Your task to perform on an android device: Go to Yahoo.com Image 0: 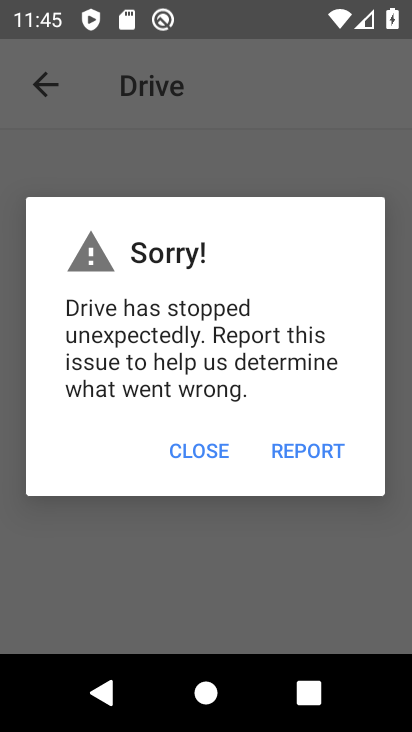
Step 0: press home button
Your task to perform on an android device: Go to Yahoo.com Image 1: 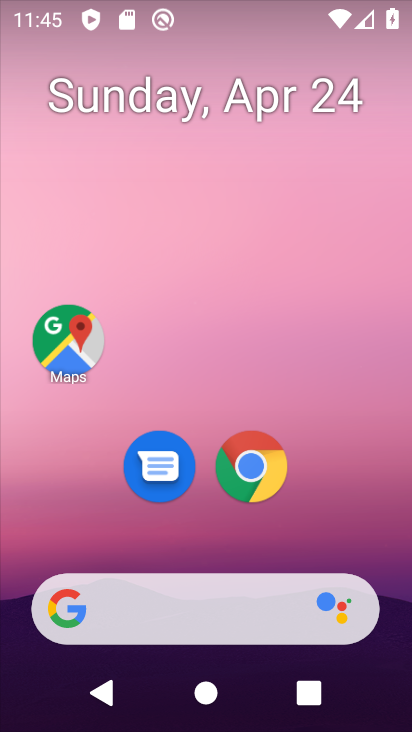
Step 1: click (255, 469)
Your task to perform on an android device: Go to Yahoo.com Image 2: 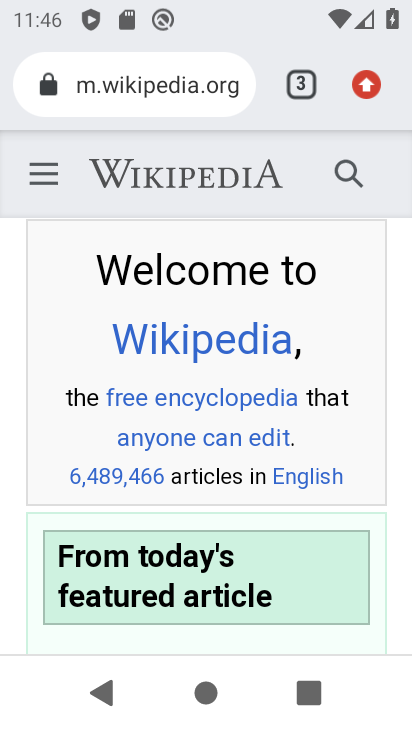
Step 2: click (308, 81)
Your task to perform on an android device: Go to Yahoo.com Image 3: 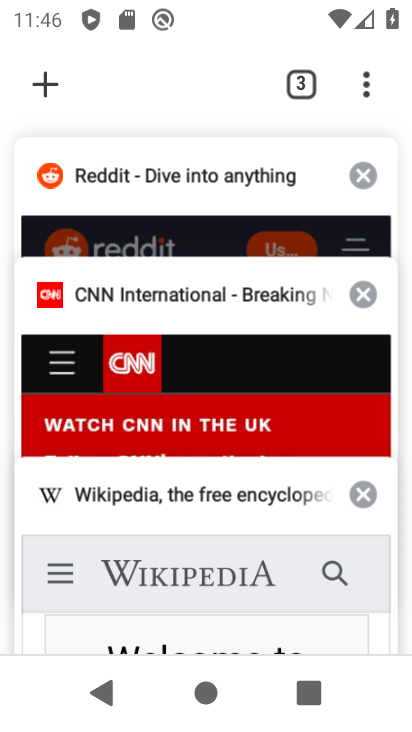
Step 3: click (54, 74)
Your task to perform on an android device: Go to Yahoo.com Image 4: 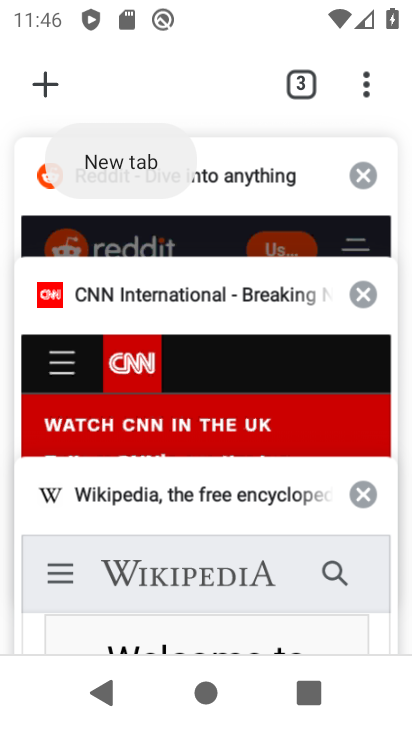
Step 4: click (52, 75)
Your task to perform on an android device: Go to Yahoo.com Image 5: 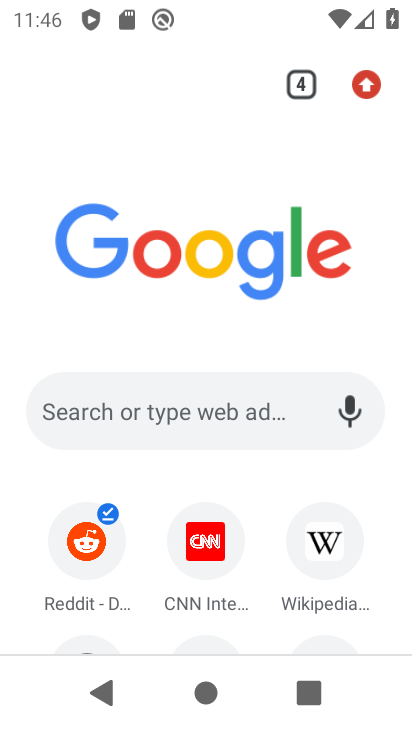
Step 5: drag from (223, 460) to (195, 88)
Your task to perform on an android device: Go to Yahoo.com Image 6: 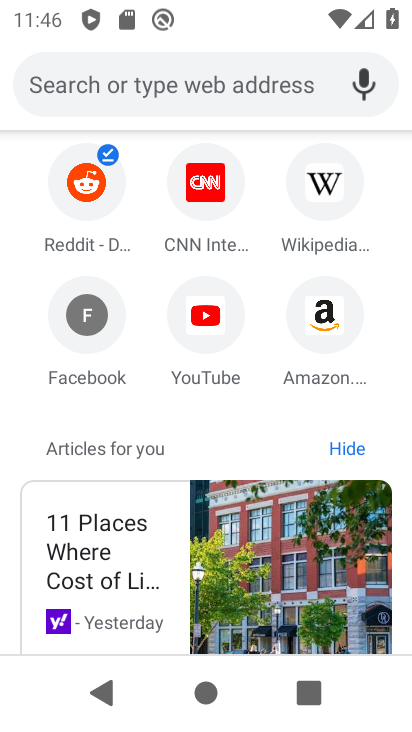
Step 6: drag from (255, 199) to (279, 528)
Your task to perform on an android device: Go to Yahoo.com Image 7: 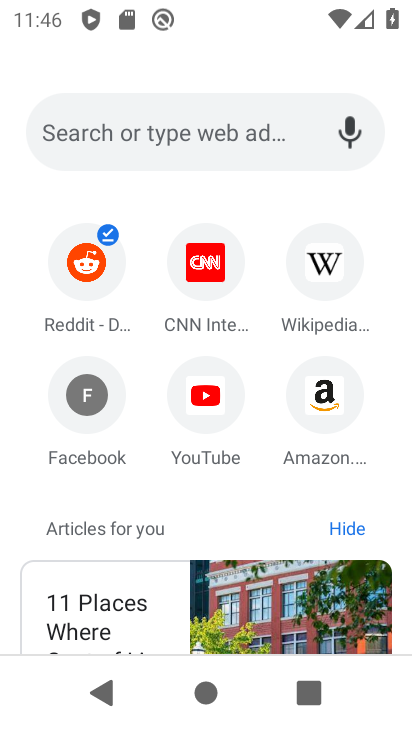
Step 7: click (159, 134)
Your task to perform on an android device: Go to Yahoo.com Image 8: 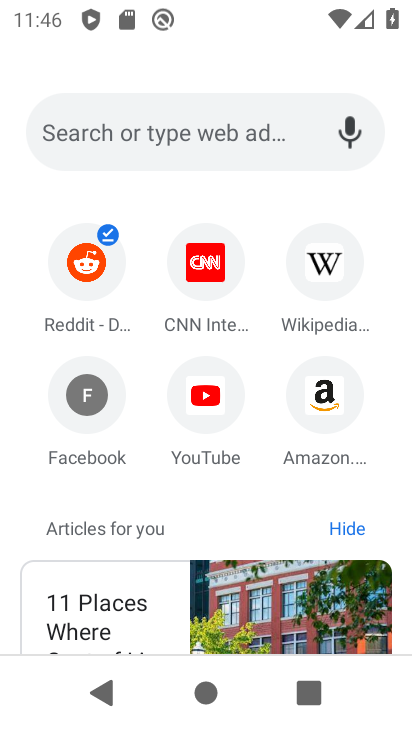
Step 8: click (196, 111)
Your task to perform on an android device: Go to Yahoo.com Image 9: 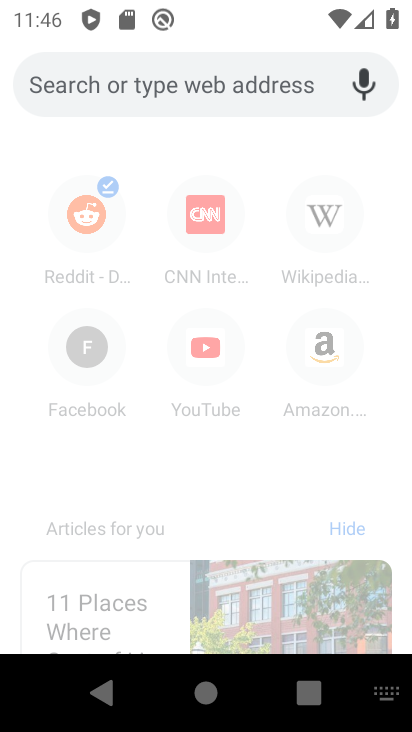
Step 9: type "yahoo"
Your task to perform on an android device: Go to Yahoo.com Image 10: 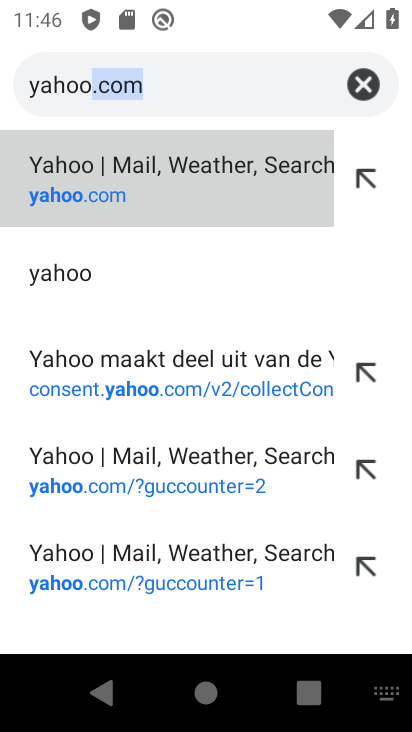
Step 10: click (76, 193)
Your task to perform on an android device: Go to Yahoo.com Image 11: 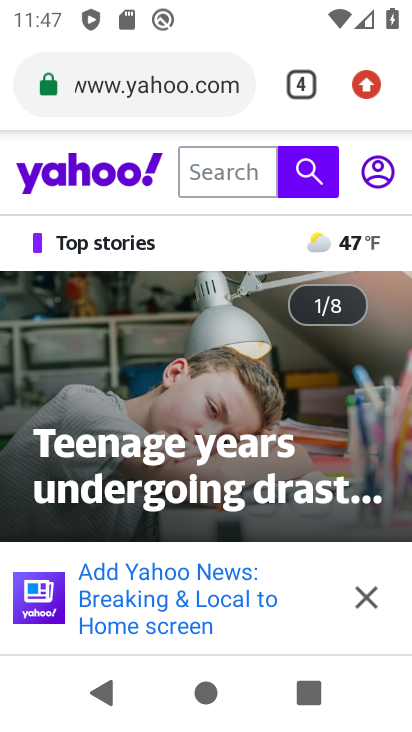
Step 11: task complete